Your task to perform on an android device: manage bookmarks in the chrome app Image 0: 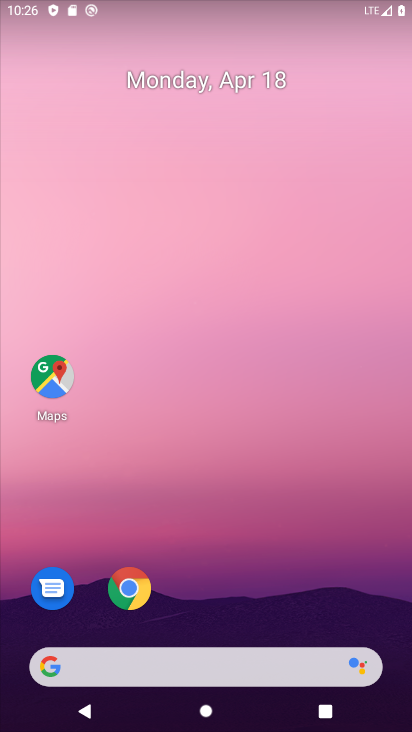
Step 0: click (130, 588)
Your task to perform on an android device: manage bookmarks in the chrome app Image 1: 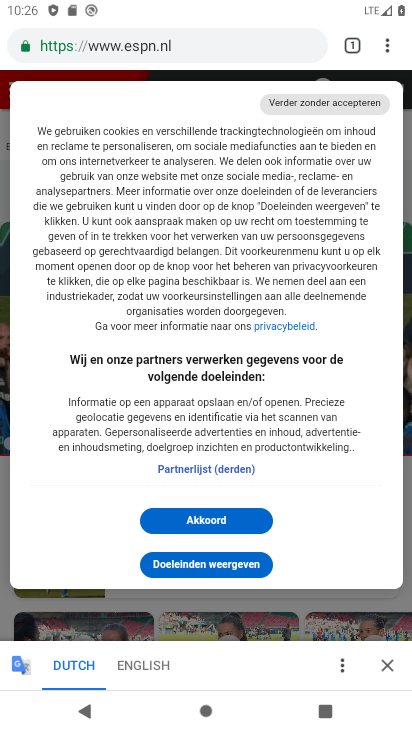
Step 1: click (387, 50)
Your task to perform on an android device: manage bookmarks in the chrome app Image 2: 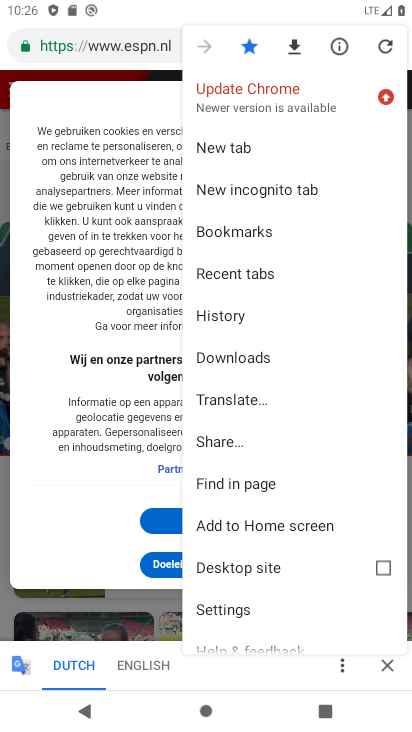
Step 2: click (219, 230)
Your task to perform on an android device: manage bookmarks in the chrome app Image 3: 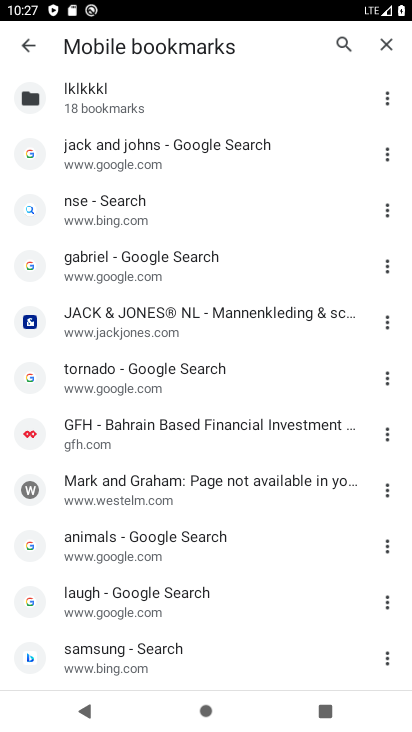
Step 3: drag from (145, 477) to (156, 160)
Your task to perform on an android device: manage bookmarks in the chrome app Image 4: 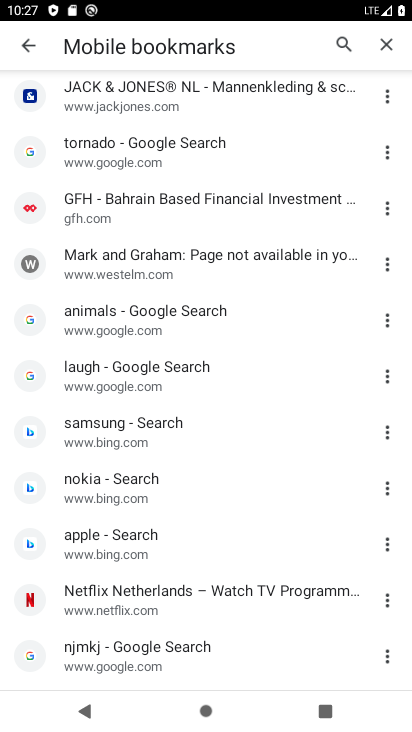
Step 4: click (97, 430)
Your task to perform on an android device: manage bookmarks in the chrome app Image 5: 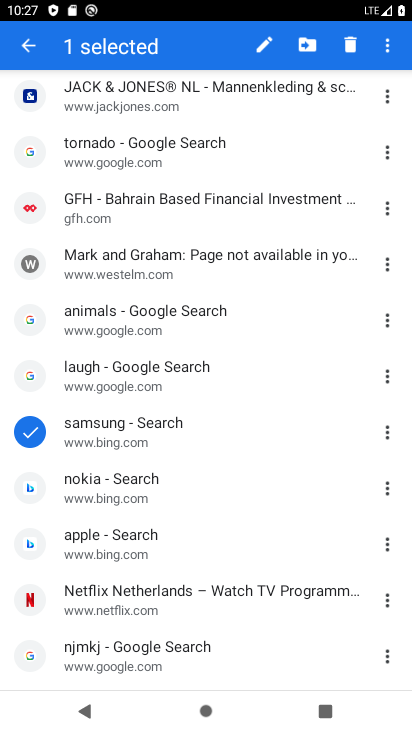
Step 5: click (306, 44)
Your task to perform on an android device: manage bookmarks in the chrome app Image 6: 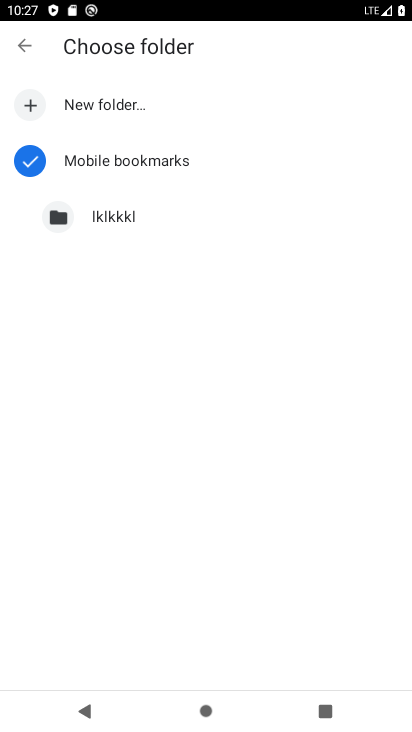
Step 6: click (27, 104)
Your task to perform on an android device: manage bookmarks in the chrome app Image 7: 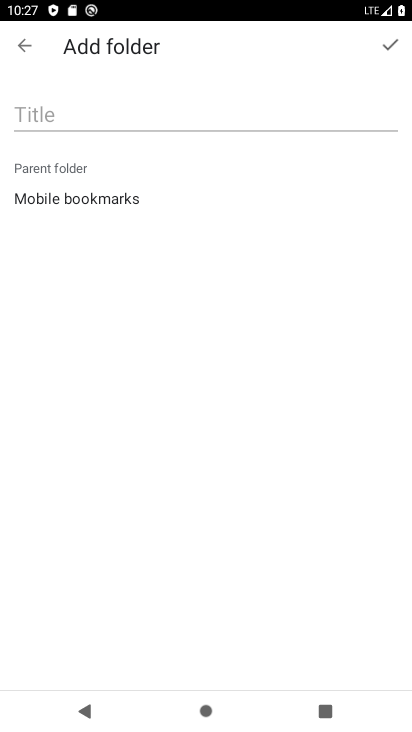
Step 7: click (45, 109)
Your task to perform on an android device: manage bookmarks in the chrome app Image 8: 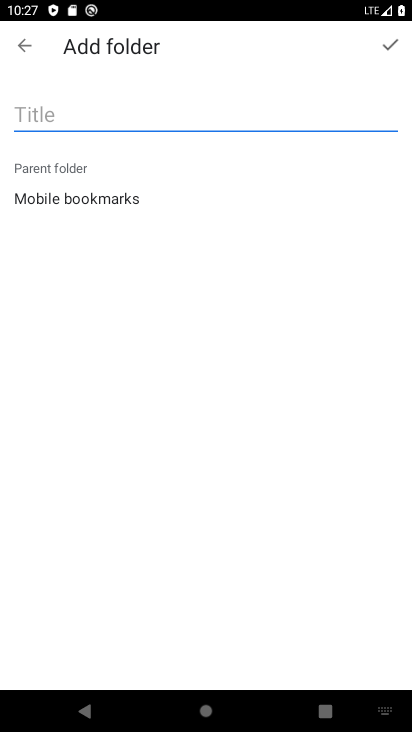
Step 8: type "fgjgj"
Your task to perform on an android device: manage bookmarks in the chrome app Image 9: 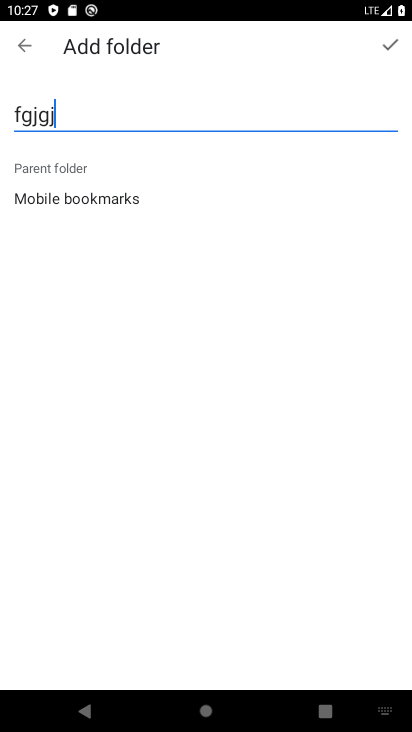
Step 9: click (389, 42)
Your task to perform on an android device: manage bookmarks in the chrome app Image 10: 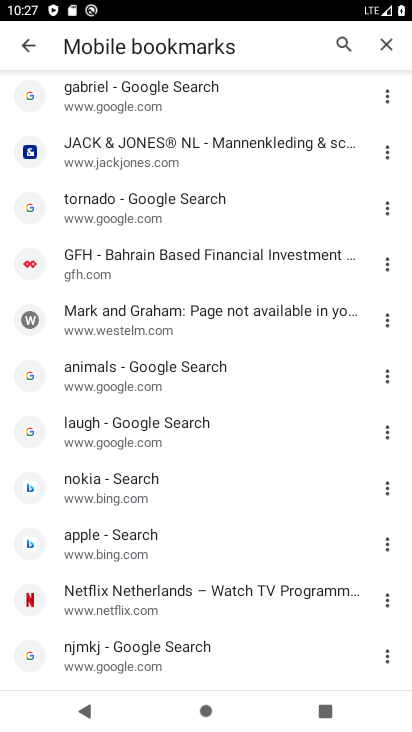
Step 10: task complete